Your task to perform on an android device: Search for the best rated mechanical keyboard on Amazon. Image 0: 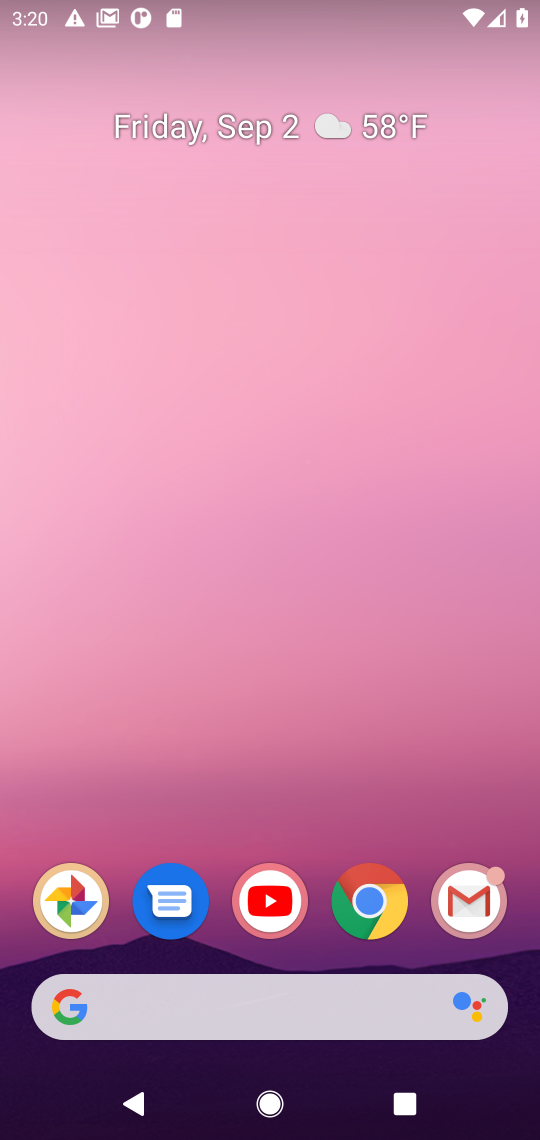
Step 0: drag from (415, 786) to (374, 353)
Your task to perform on an android device: Search for the best rated mechanical keyboard on Amazon. Image 1: 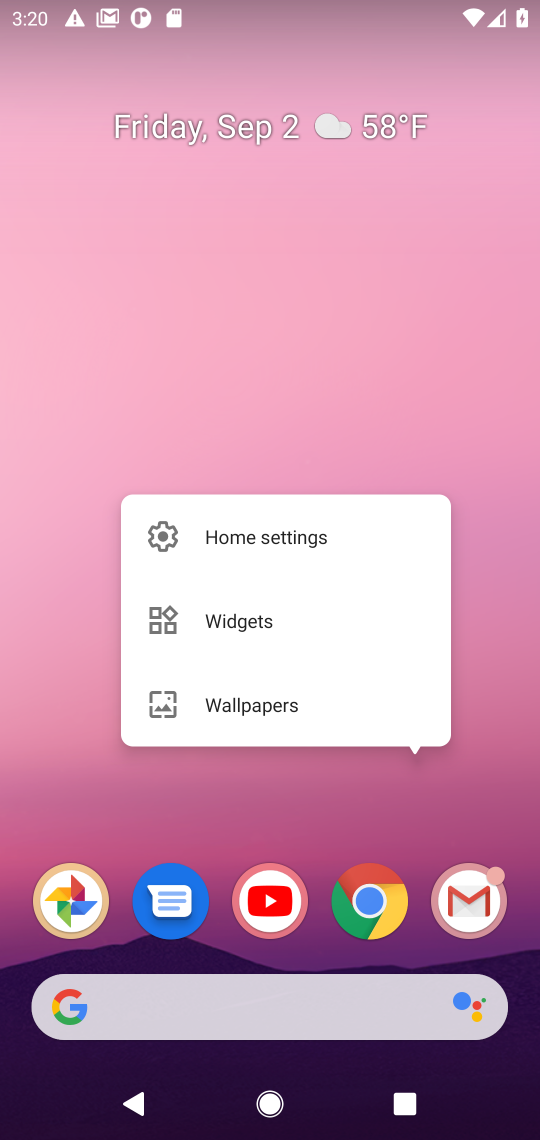
Step 1: click (268, 425)
Your task to perform on an android device: Search for the best rated mechanical keyboard on Amazon. Image 2: 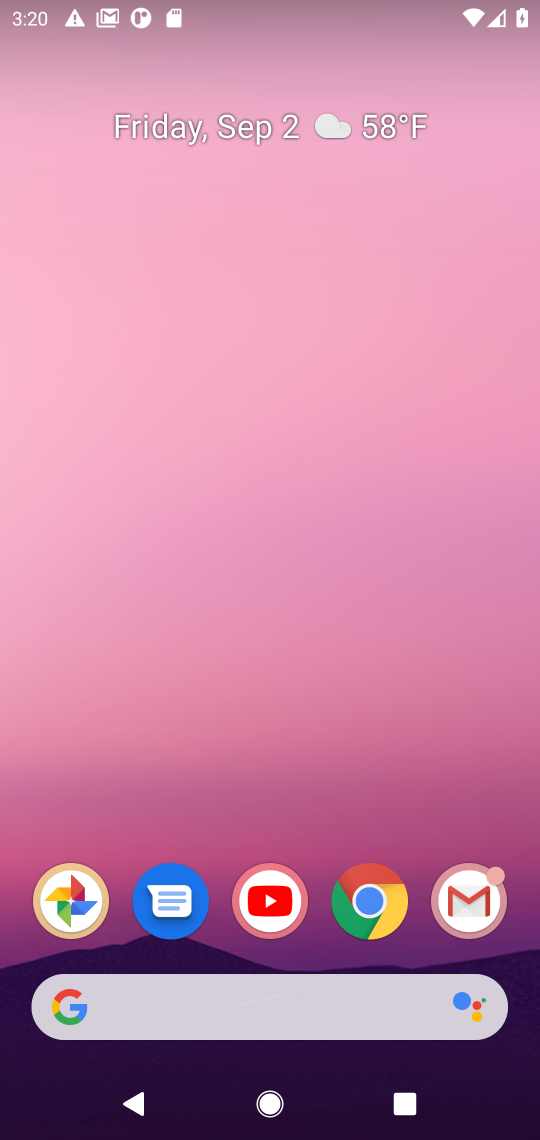
Step 2: drag from (431, 773) to (303, 94)
Your task to perform on an android device: Search for the best rated mechanical keyboard on Amazon. Image 3: 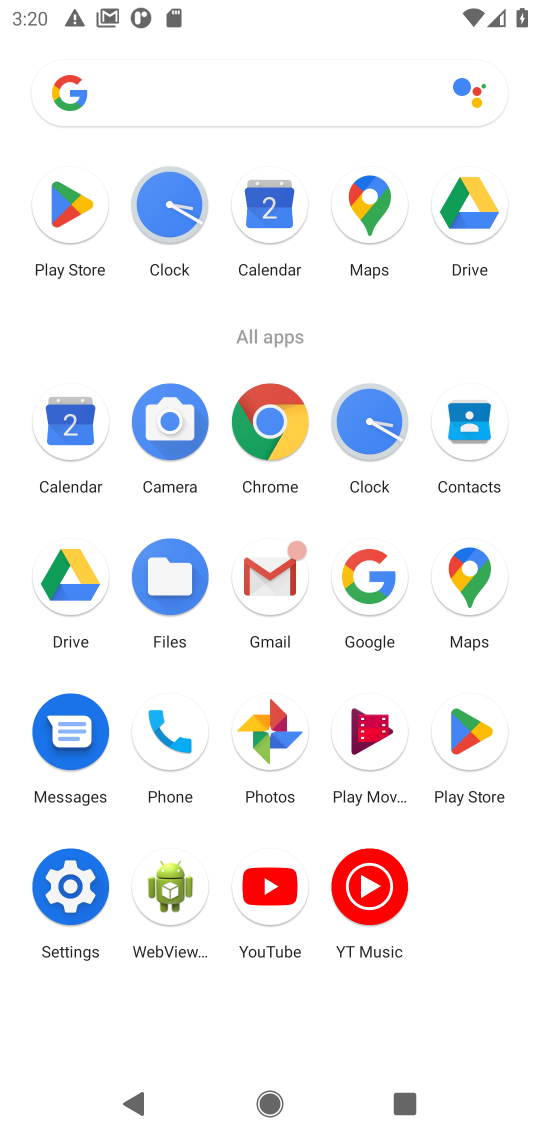
Step 3: click (276, 427)
Your task to perform on an android device: Search for the best rated mechanical keyboard on Amazon. Image 4: 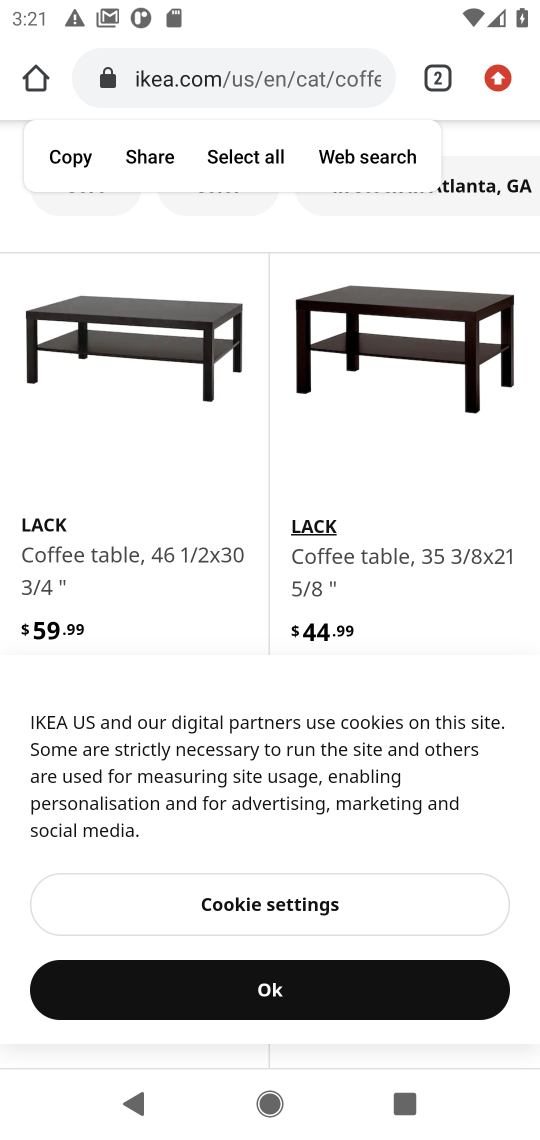
Step 4: click (338, 93)
Your task to perform on an android device: Search for the best rated mechanical keyboard on Amazon. Image 5: 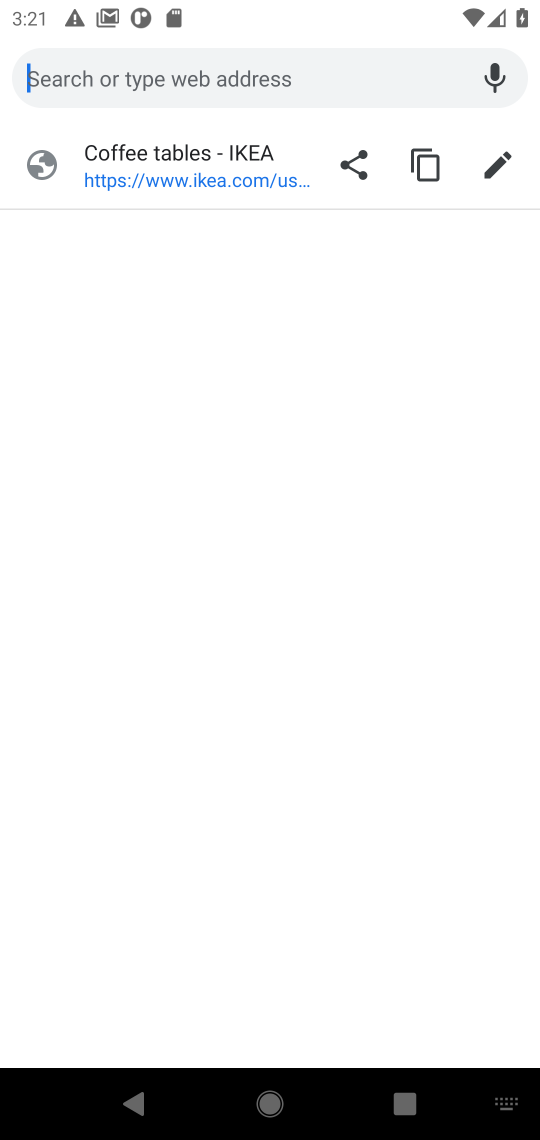
Step 5: type "best rated mechanical keyboard on amazon"
Your task to perform on an android device: Search for the best rated mechanical keyboard on Amazon. Image 6: 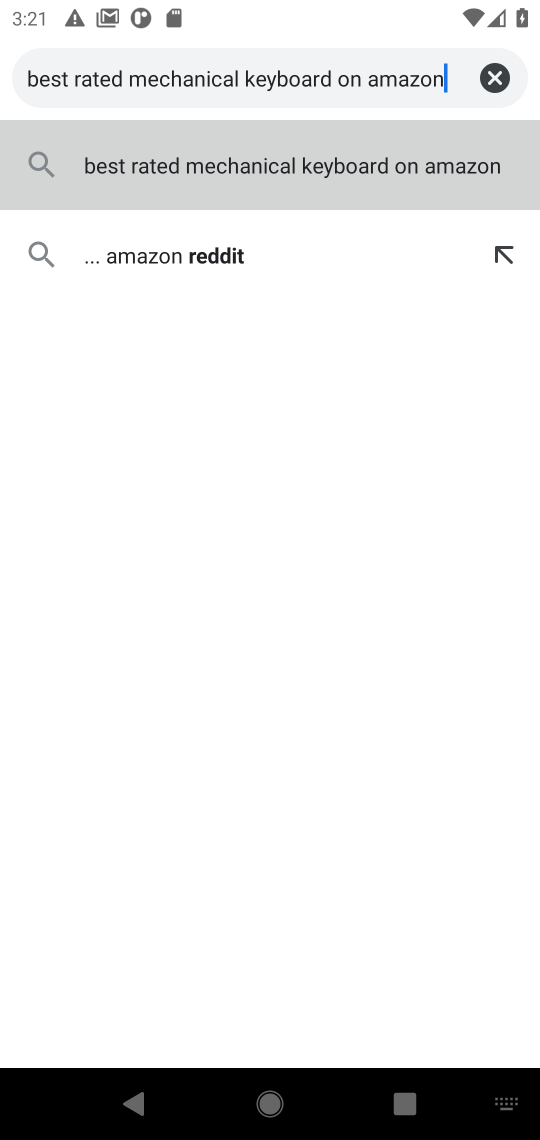
Step 6: press enter
Your task to perform on an android device: Search for the best rated mechanical keyboard on Amazon. Image 7: 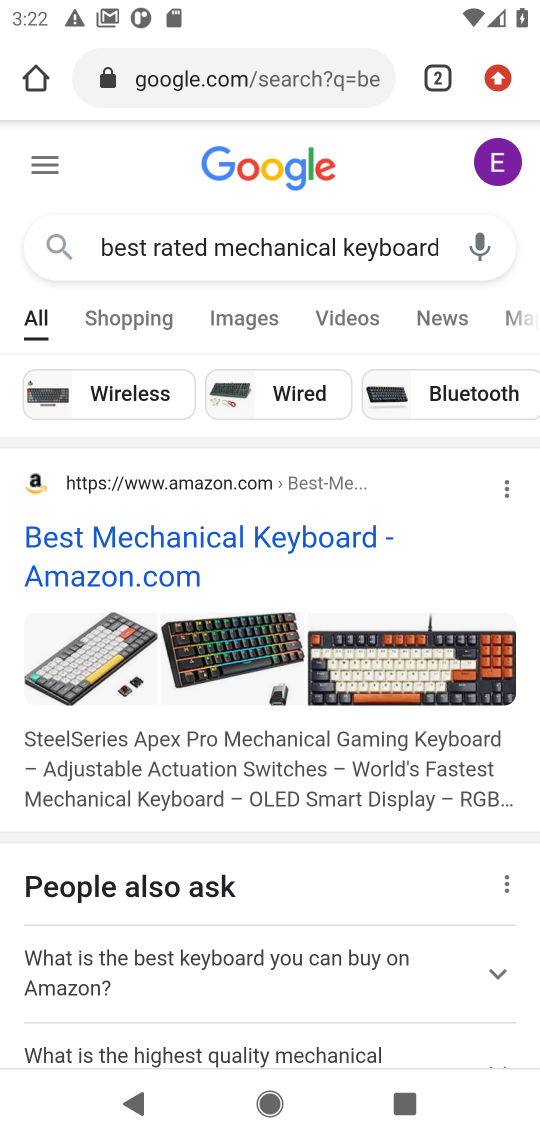
Step 7: click (160, 555)
Your task to perform on an android device: Search for the best rated mechanical keyboard on Amazon. Image 8: 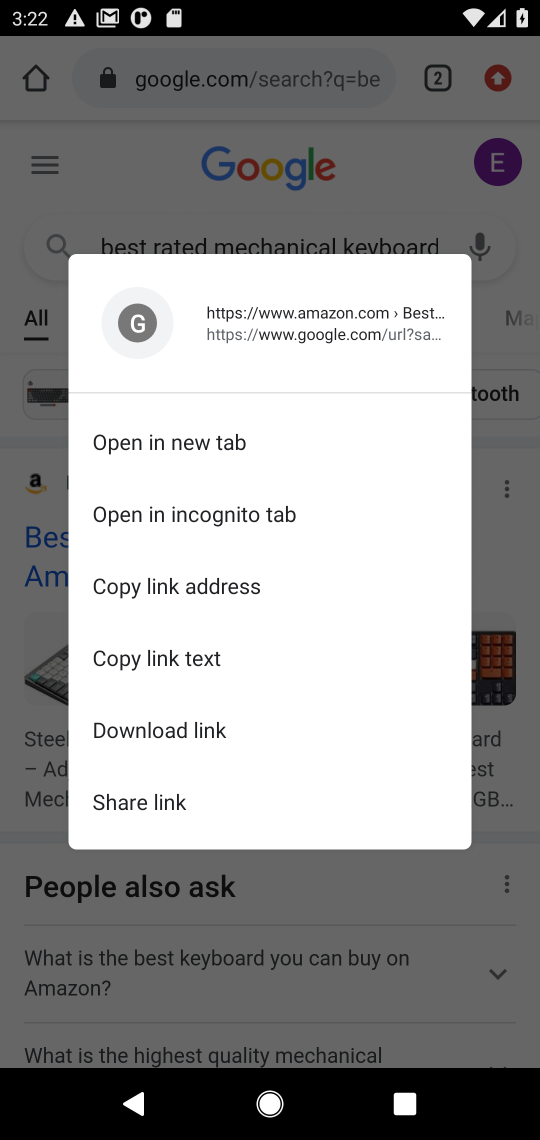
Step 8: click (174, 449)
Your task to perform on an android device: Search for the best rated mechanical keyboard on Amazon. Image 9: 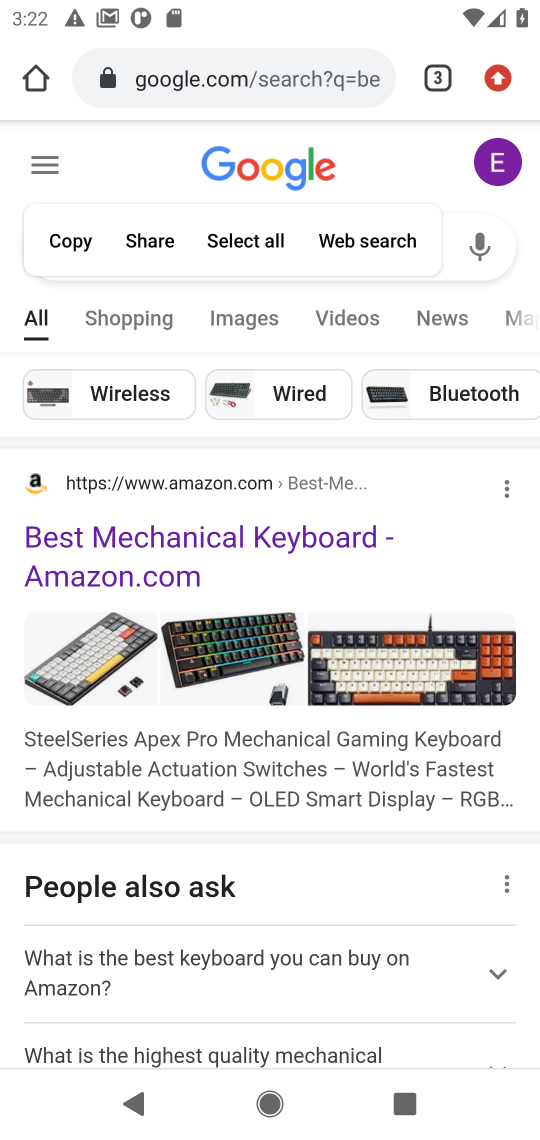
Step 9: click (226, 551)
Your task to perform on an android device: Search for the best rated mechanical keyboard on Amazon. Image 10: 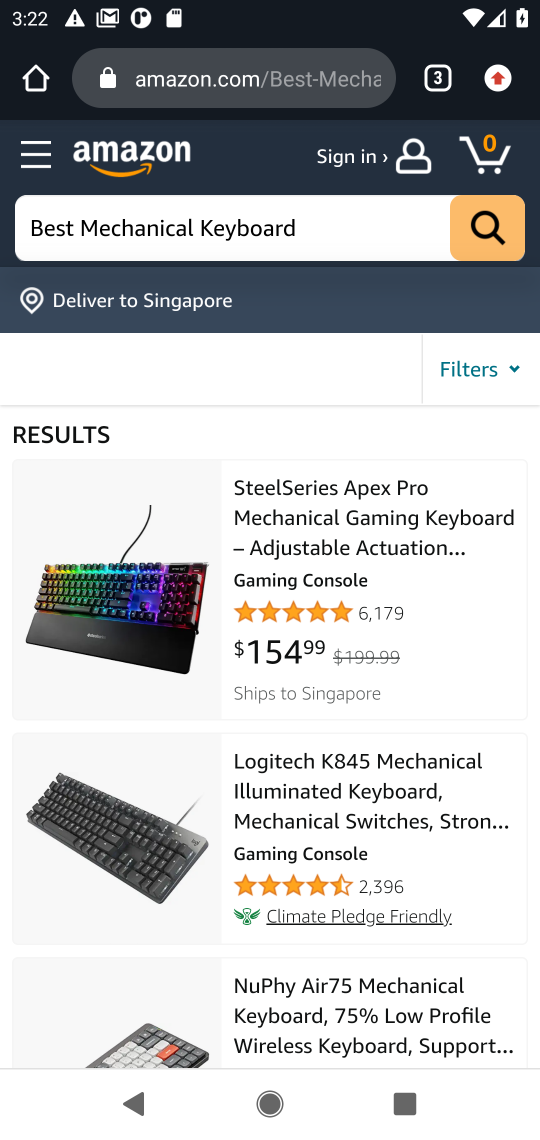
Step 10: drag from (271, 758) to (318, 462)
Your task to perform on an android device: Search for the best rated mechanical keyboard on Amazon. Image 11: 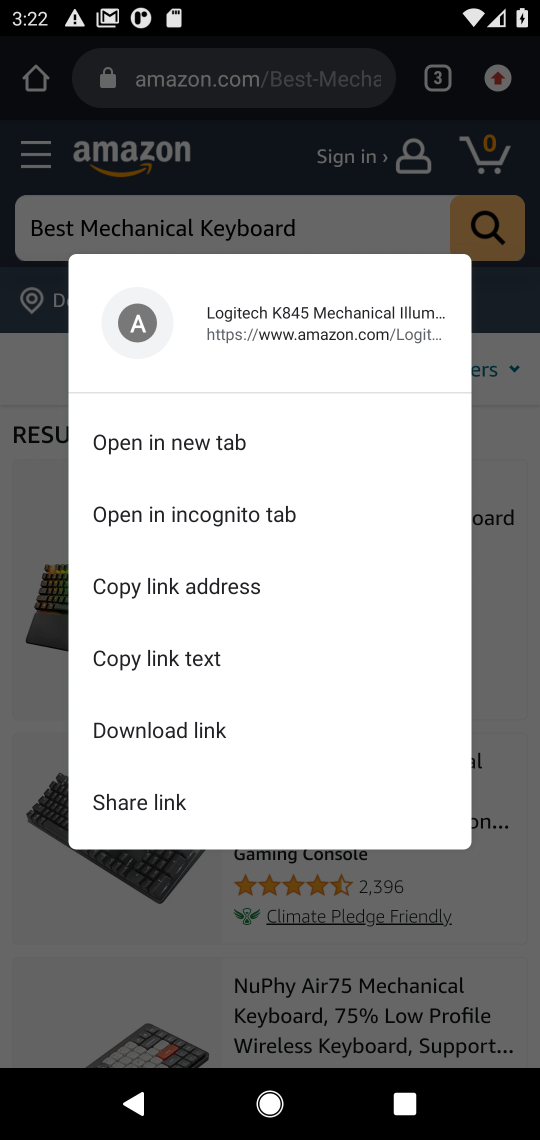
Step 11: click (396, 973)
Your task to perform on an android device: Search for the best rated mechanical keyboard on Amazon. Image 12: 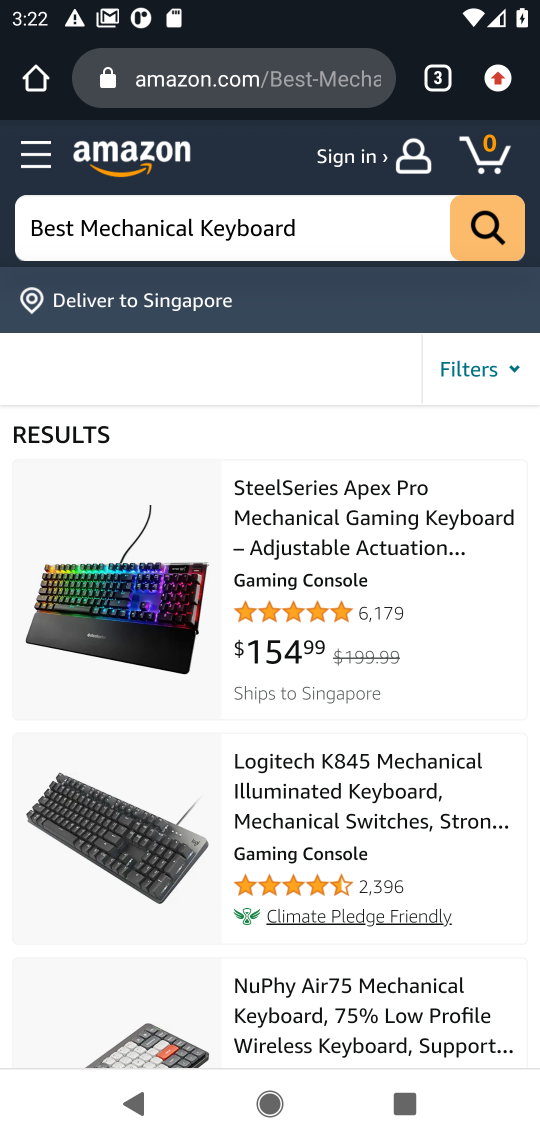
Step 12: drag from (391, 956) to (330, 578)
Your task to perform on an android device: Search for the best rated mechanical keyboard on Amazon. Image 13: 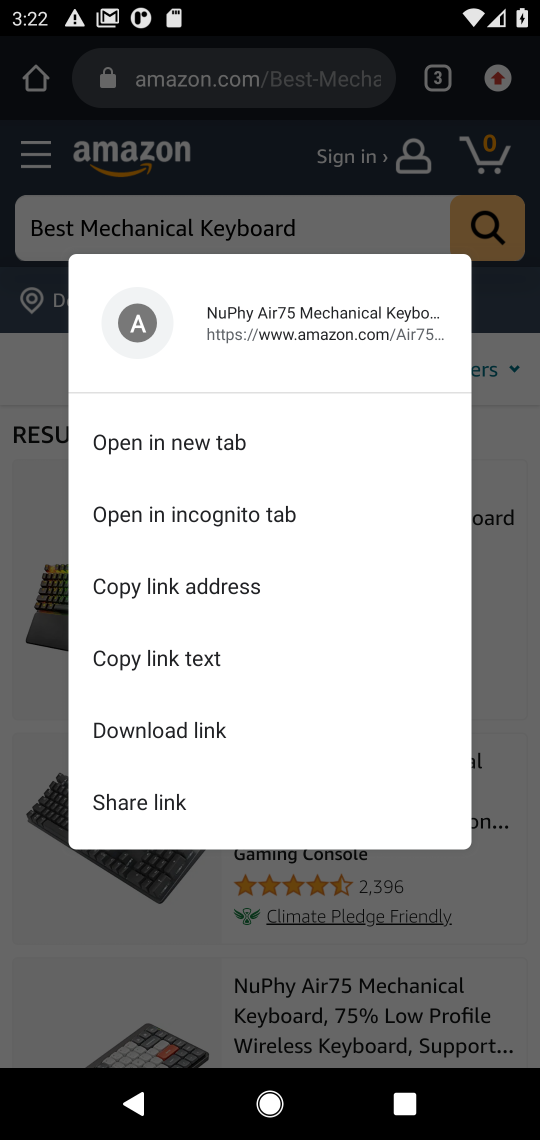
Step 13: click (179, 883)
Your task to perform on an android device: Search for the best rated mechanical keyboard on Amazon. Image 14: 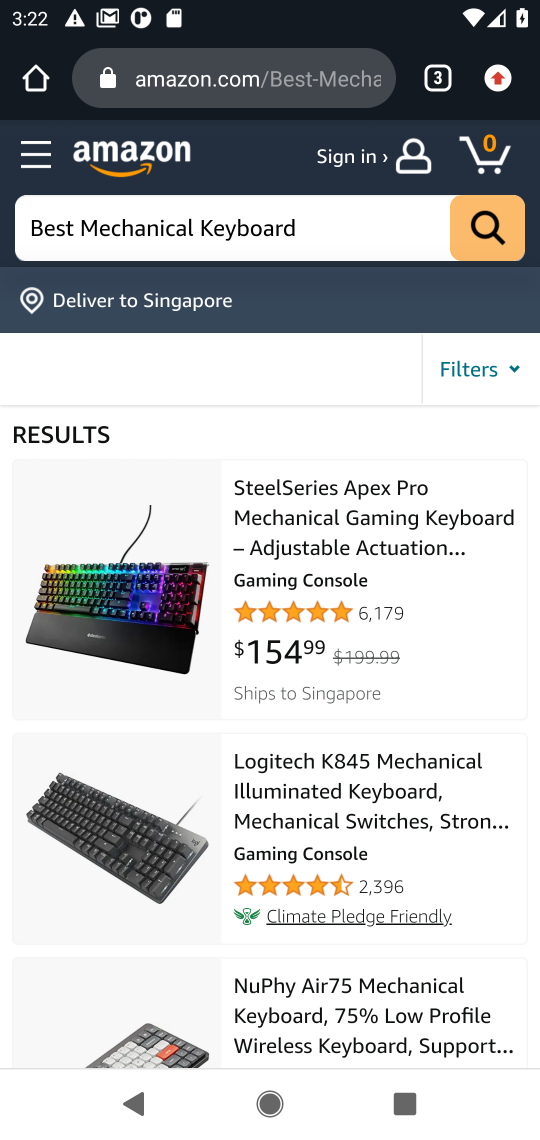
Step 14: task complete